Your task to perform on an android device: What's the weather going to be tomorrow? Image 0: 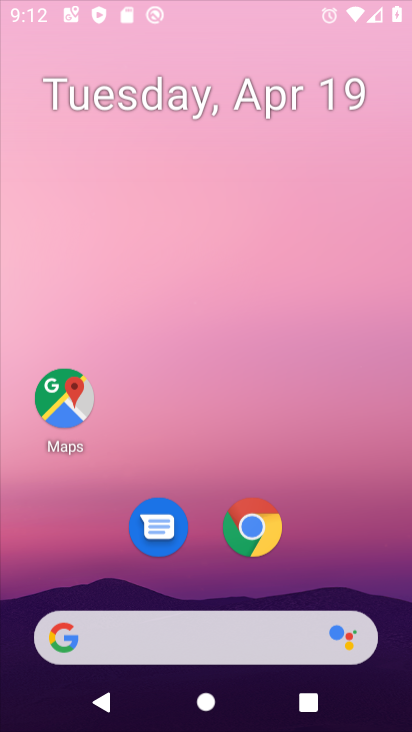
Step 0: click (370, 89)
Your task to perform on an android device: What's the weather going to be tomorrow? Image 1: 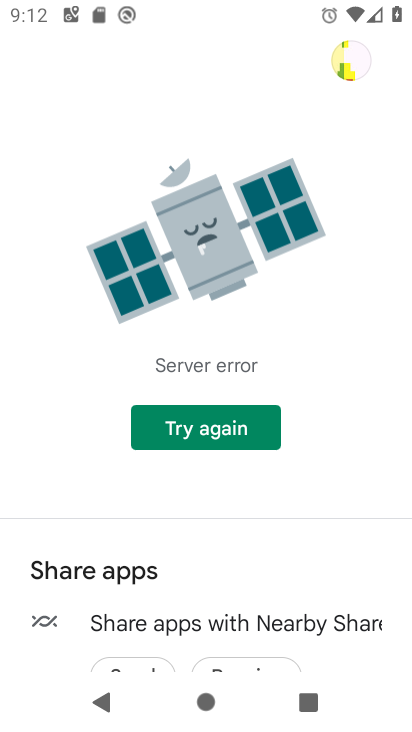
Step 1: press home button
Your task to perform on an android device: What's the weather going to be tomorrow? Image 2: 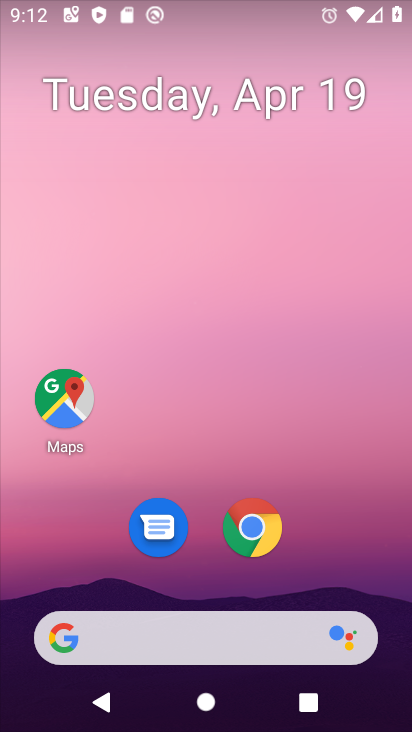
Step 2: drag from (275, 554) to (279, 208)
Your task to perform on an android device: What's the weather going to be tomorrow? Image 3: 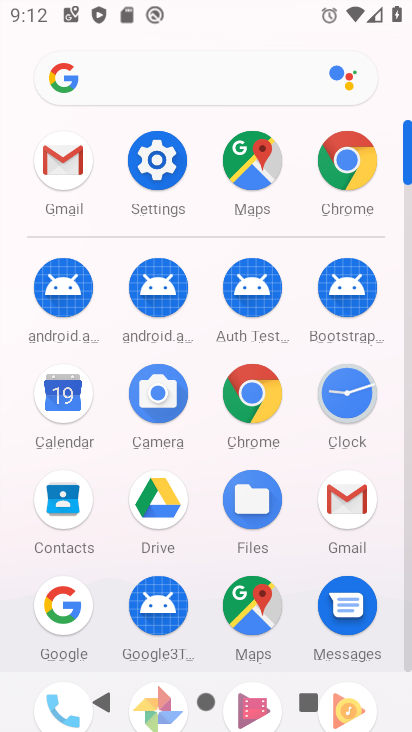
Step 3: click (253, 392)
Your task to perform on an android device: What's the weather going to be tomorrow? Image 4: 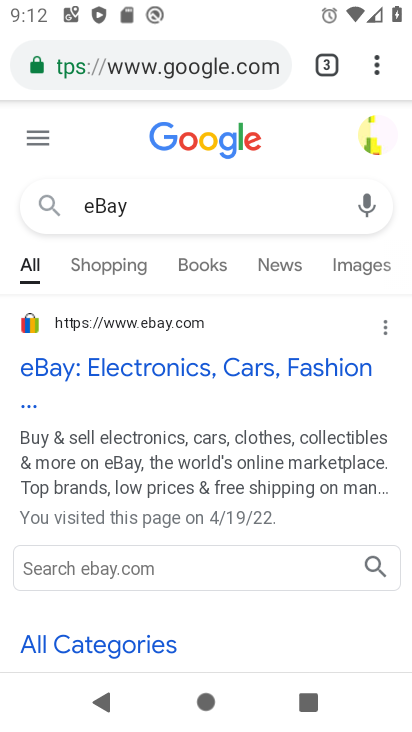
Step 4: click (379, 70)
Your task to perform on an android device: What's the weather going to be tomorrow? Image 5: 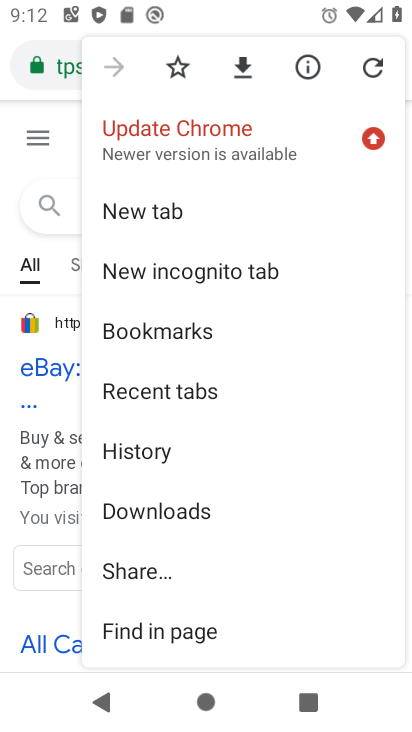
Step 5: click (191, 212)
Your task to perform on an android device: What's the weather going to be tomorrow? Image 6: 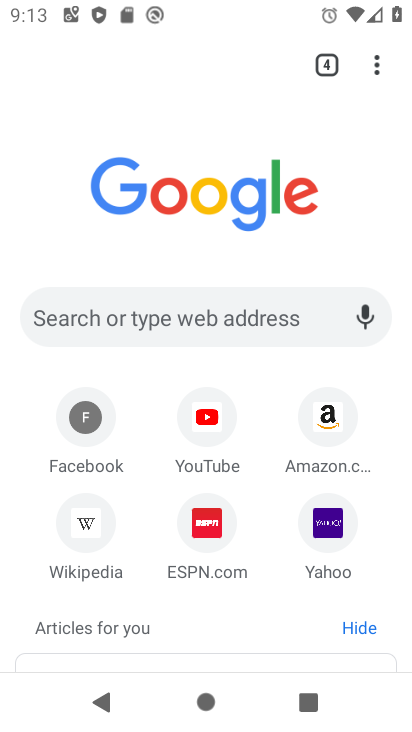
Step 6: click (273, 313)
Your task to perform on an android device: What's the weather going to be tomorrow? Image 7: 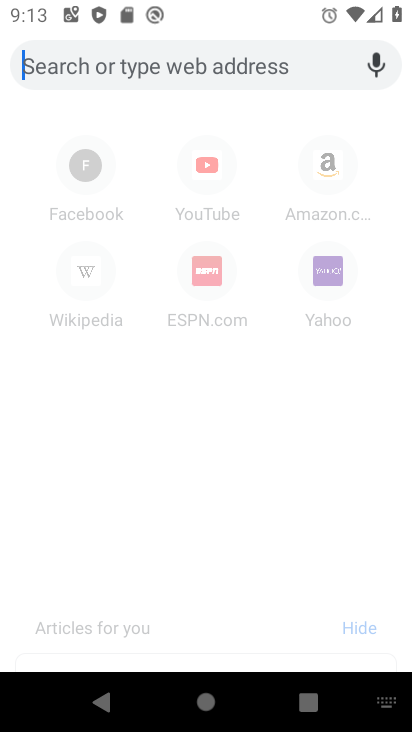
Step 7: type "What's the weather going to be tomorrow?"
Your task to perform on an android device: What's the weather going to be tomorrow? Image 8: 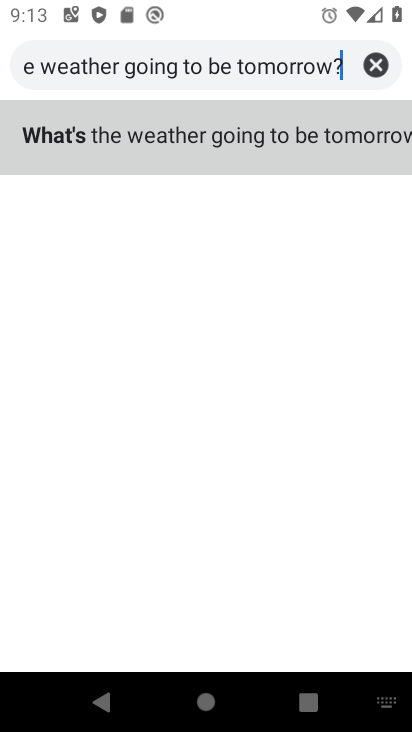
Step 8: click (148, 133)
Your task to perform on an android device: What's the weather going to be tomorrow? Image 9: 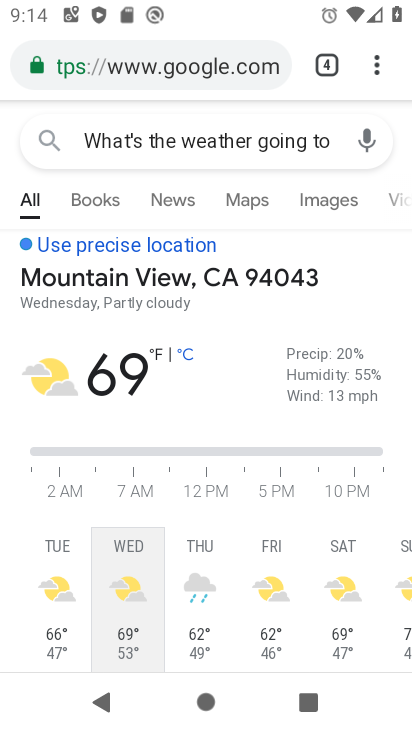
Step 9: task complete